Your task to perform on an android device: toggle sleep mode Image 0: 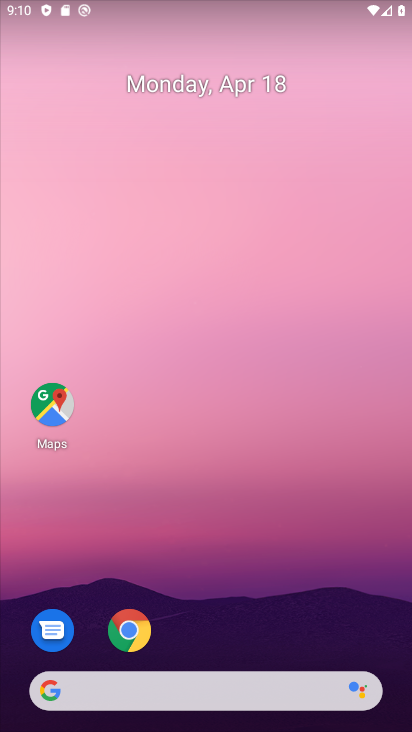
Step 0: task impossible